Your task to perform on an android device: turn on wifi Image 0: 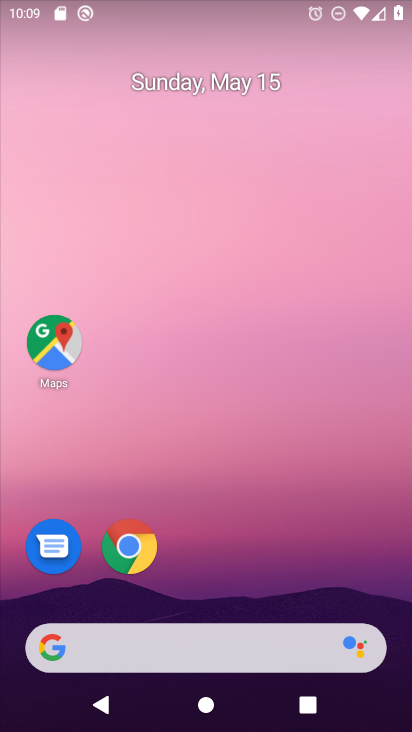
Step 0: drag from (225, 3) to (256, 444)
Your task to perform on an android device: turn on wifi Image 1: 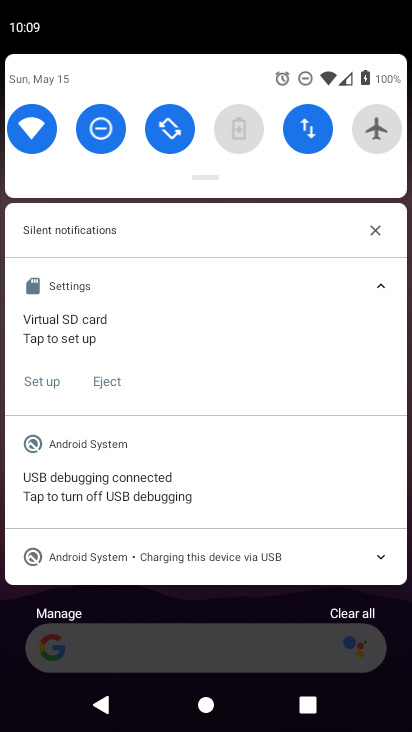
Step 1: task complete